Your task to perform on an android device: Go to accessibility settings Image 0: 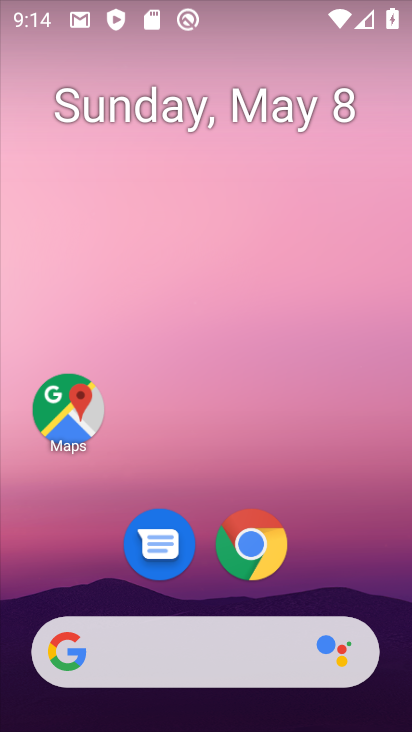
Step 0: drag from (357, 586) to (250, 159)
Your task to perform on an android device: Go to accessibility settings Image 1: 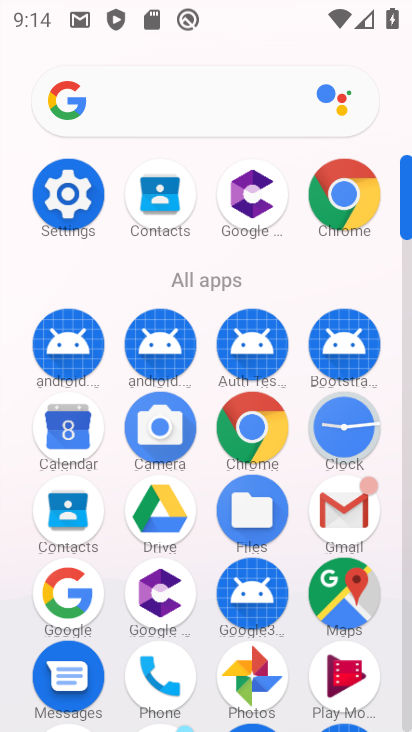
Step 1: click (43, 207)
Your task to perform on an android device: Go to accessibility settings Image 2: 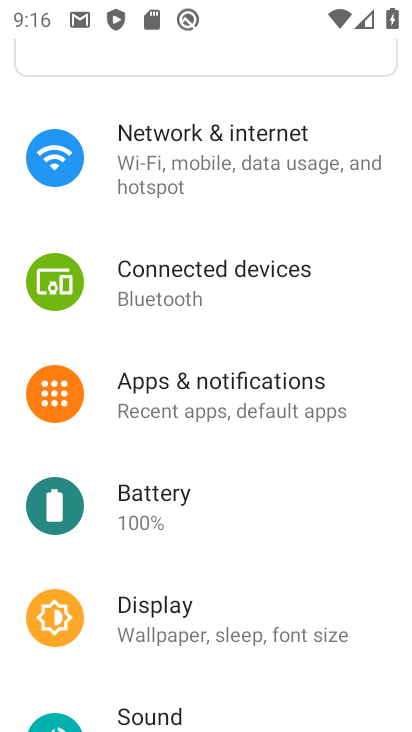
Step 2: drag from (233, 592) to (257, 143)
Your task to perform on an android device: Go to accessibility settings Image 3: 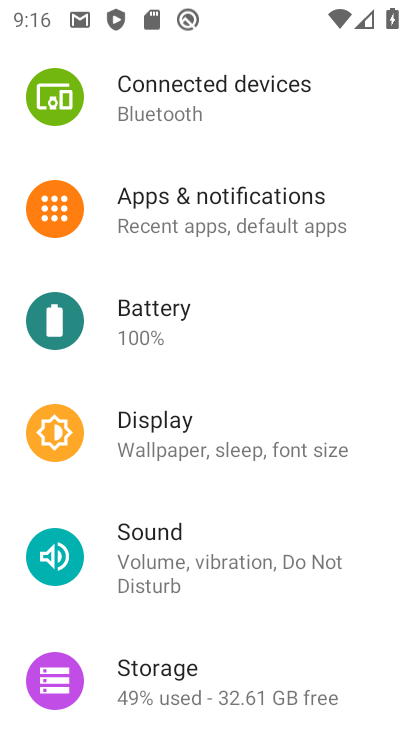
Step 3: drag from (238, 622) to (256, 282)
Your task to perform on an android device: Go to accessibility settings Image 4: 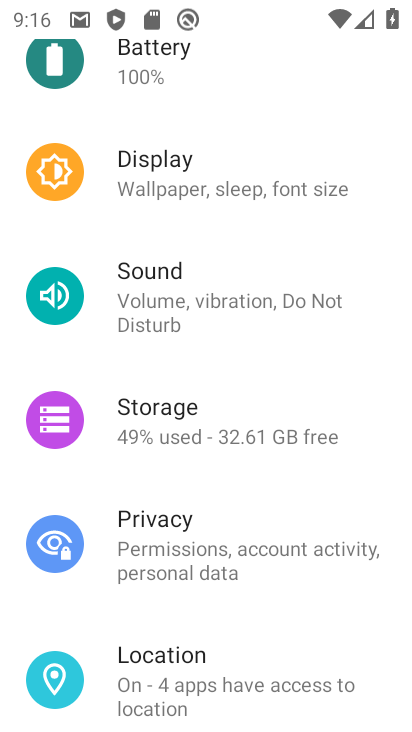
Step 4: drag from (242, 669) to (248, 392)
Your task to perform on an android device: Go to accessibility settings Image 5: 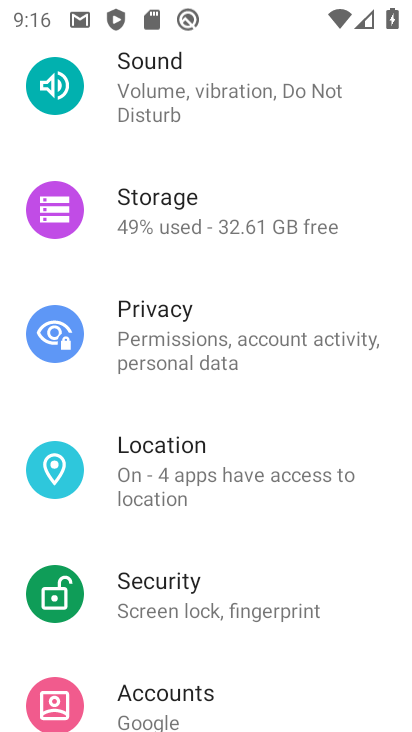
Step 5: drag from (219, 563) to (225, 390)
Your task to perform on an android device: Go to accessibility settings Image 6: 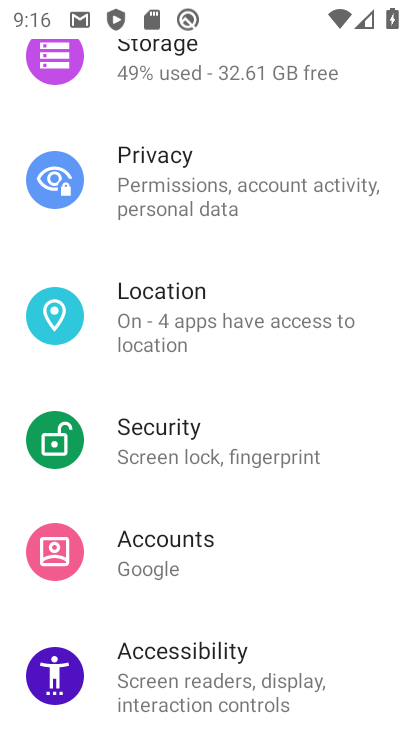
Step 6: click (197, 667)
Your task to perform on an android device: Go to accessibility settings Image 7: 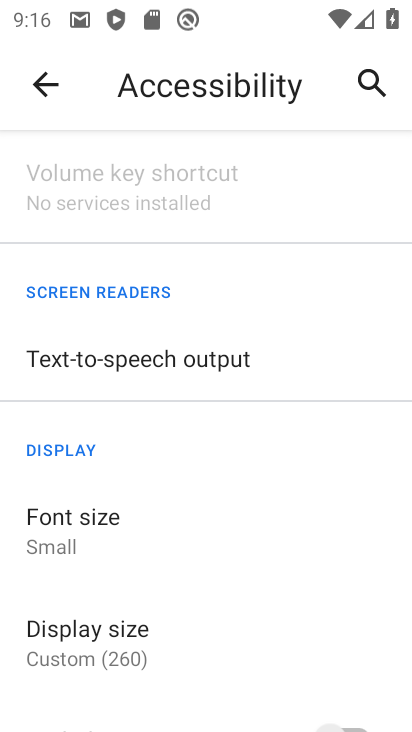
Step 7: task complete